Your task to perform on an android device: Open maps Image 0: 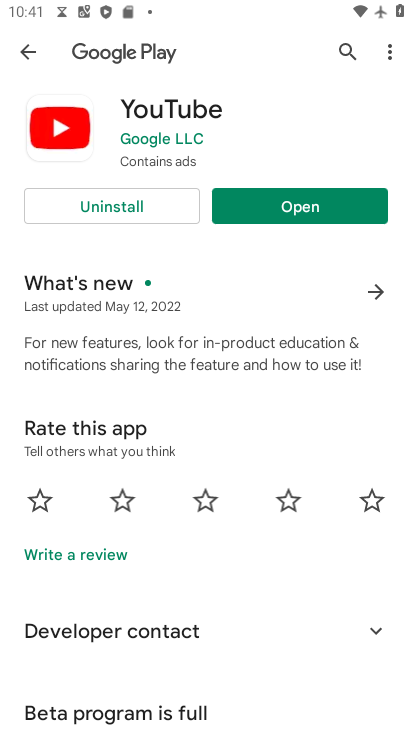
Step 0: press back button
Your task to perform on an android device: Open maps Image 1: 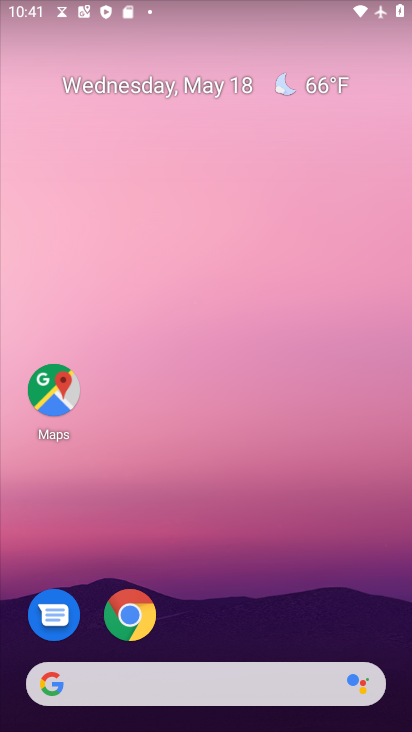
Step 1: click (59, 383)
Your task to perform on an android device: Open maps Image 2: 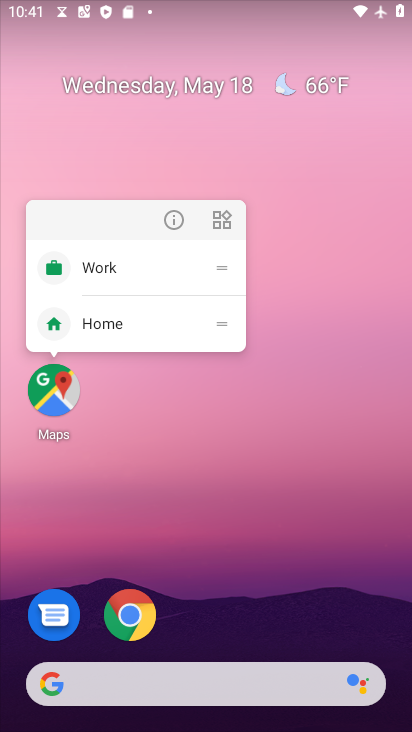
Step 2: click (59, 383)
Your task to perform on an android device: Open maps Image 3: 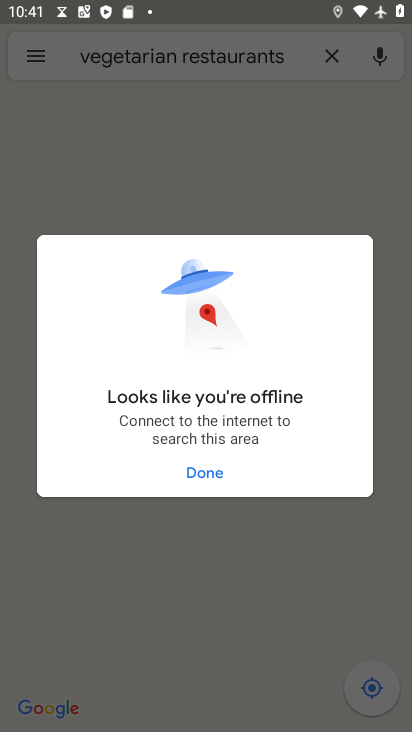
Step 3: task complete